Your task to perform on an android device: delete a single message in the gmail app Image 0: 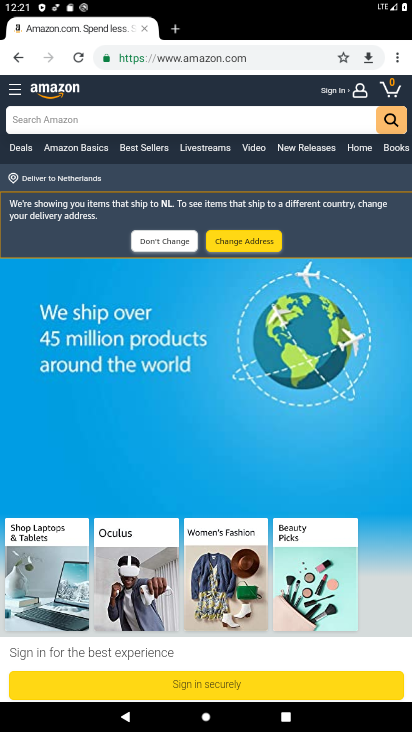
Step 0: press home button
Your task to perform on an android device: delete a single message in the gmail app Image 1: 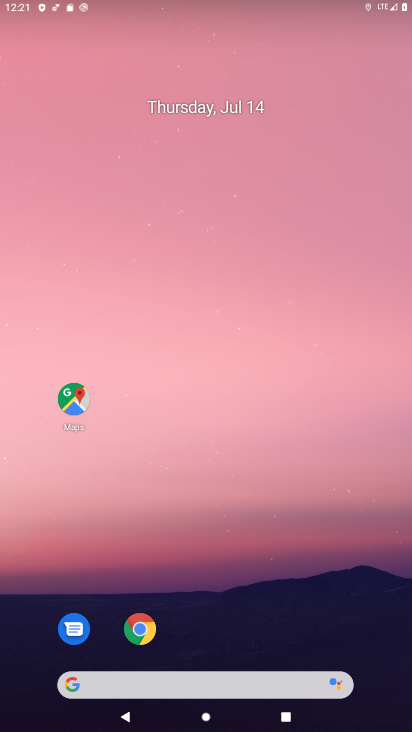
Step 1: drag from (294, 592) to (222, 14)
Your task to perform on an android device: delete a single message in the gmail app Image 2: 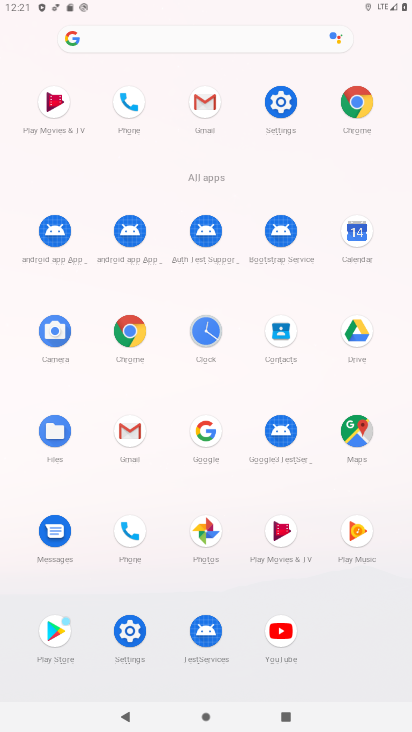
Step 2: click (133, 438)
Your task to perform on an android device: delete a single message in the gmail app Image 3: 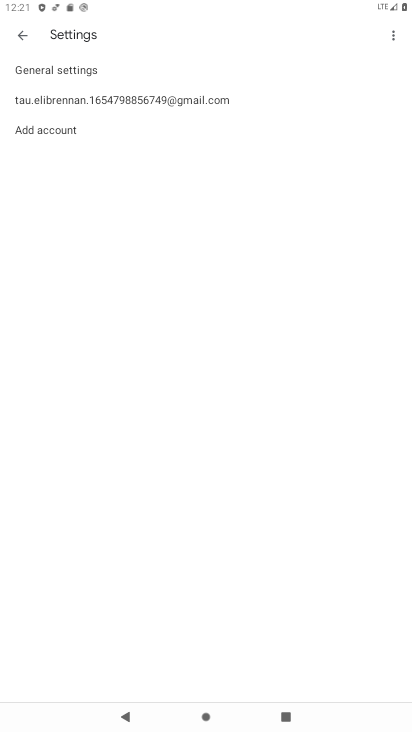
Step 3: click (22, 41)
Your task to perform on an android device: delete a single message in the gmail app Image 4: 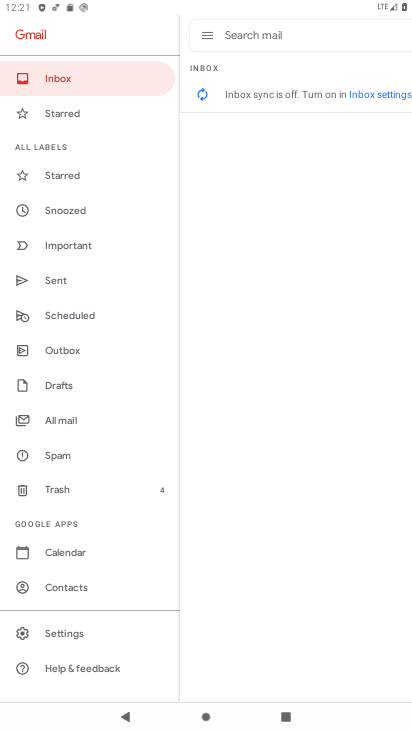
Step 4: click (56, 79)
Your task to perform on an android device: delete a single message in the gmail app Image 5: 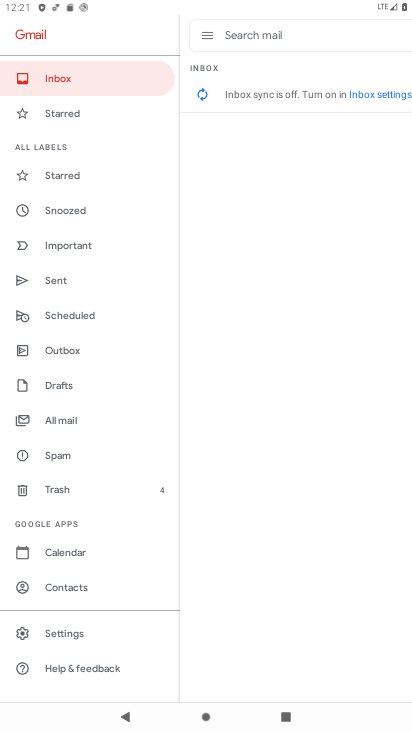
Step 5: click (208, 98)
Your task to perform on an android device: delete a single message in the gmail app Image 6: 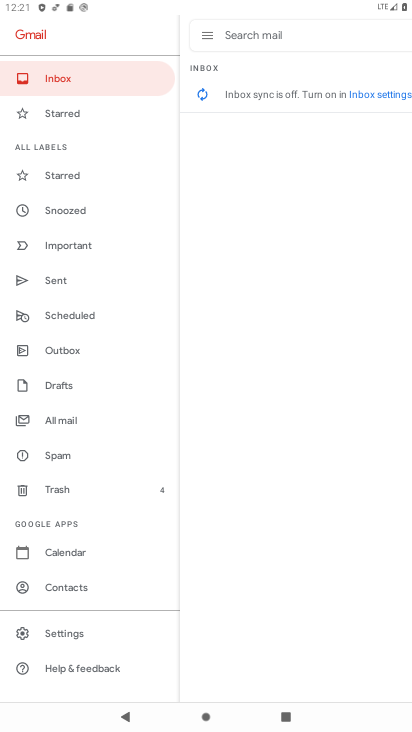
Step 6: click (204, 94)
Your task to perform on an android device: delete a single message in the gmail app Image 7: 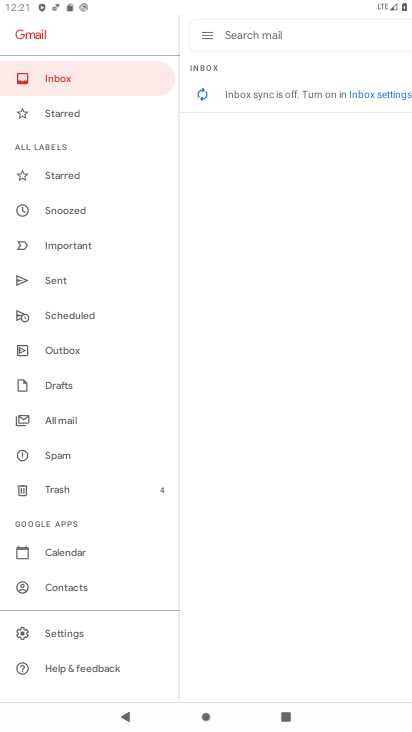
Step 7: task complete